Your task to perform on an android device: Go to wifi settings Image 0: 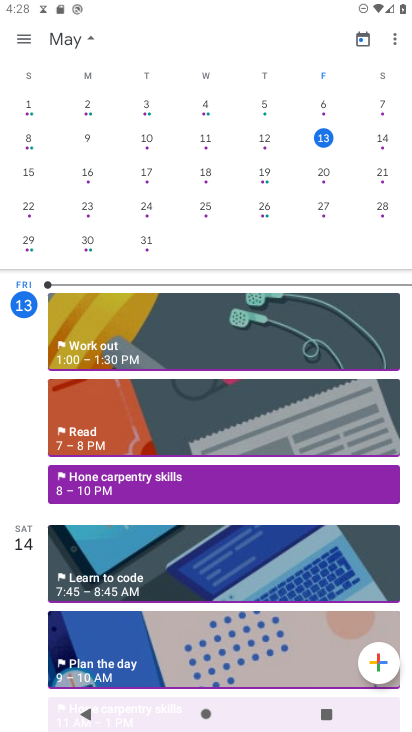
Step 0: press home button
Your task to perform on an android device: Go to wifi settings Image 1: 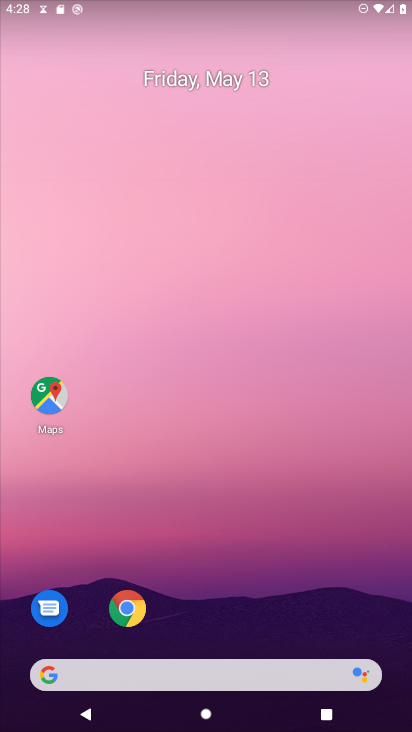
Step 1: drag from (316, 651) to (326, 0)
Your task to perform on an android device: Go to wifi settings Image 2: 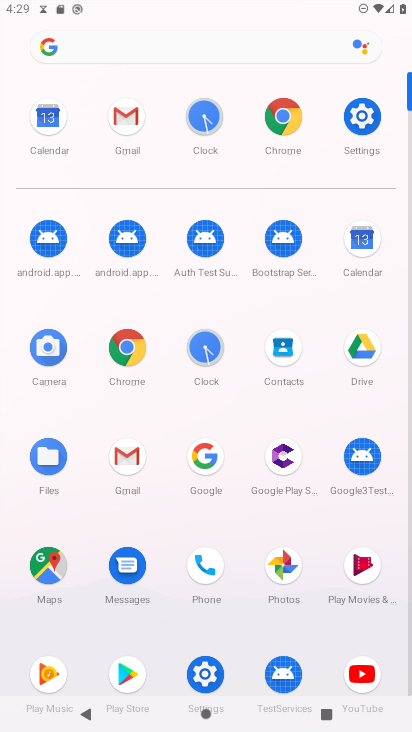
Step 2: click (368, 121)
Your task to perform on an android device: Go to wifi settings Image 3: 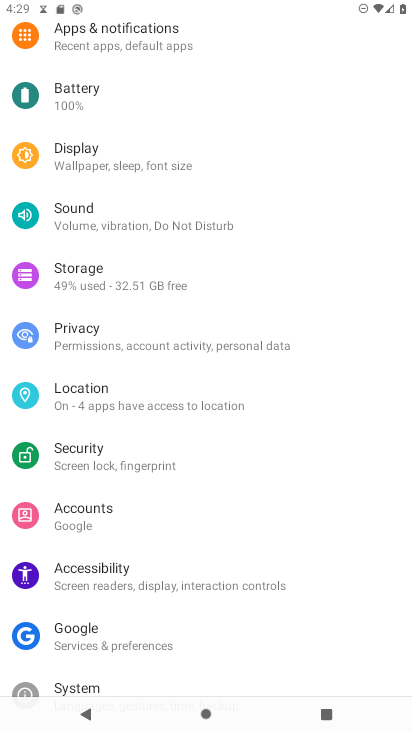
Step 3: drag from (161, 136) to (171, 654)
Your task to perform on an android device: Go to wifi settings Image 4: 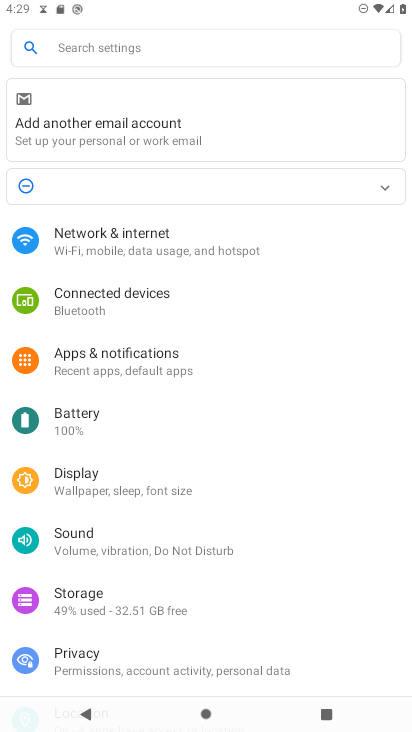
Step 4: click (139, 241)
Your task to perform on an android device: Go to wifi settings Image 5: 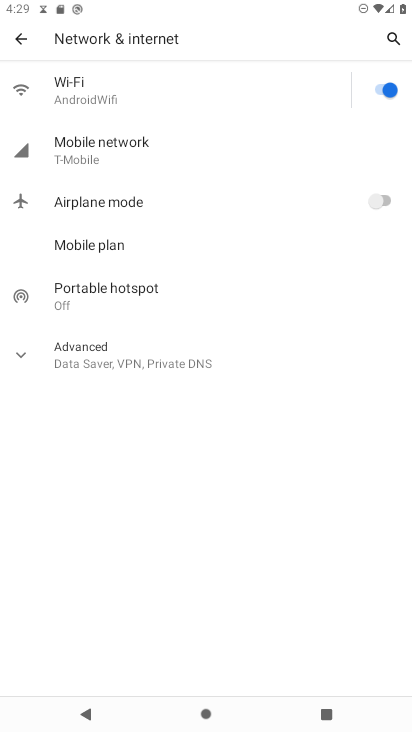
Step 5: click (224, 81)
Your task to perform on an android device: Go to wifi settings Image 6: 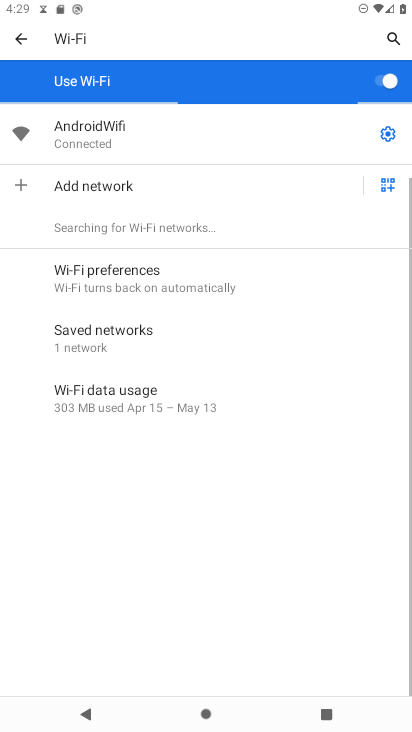
Step 6: task complete